Your task to perform on an android device: turn off notifications settings in the gmail app Image 0: 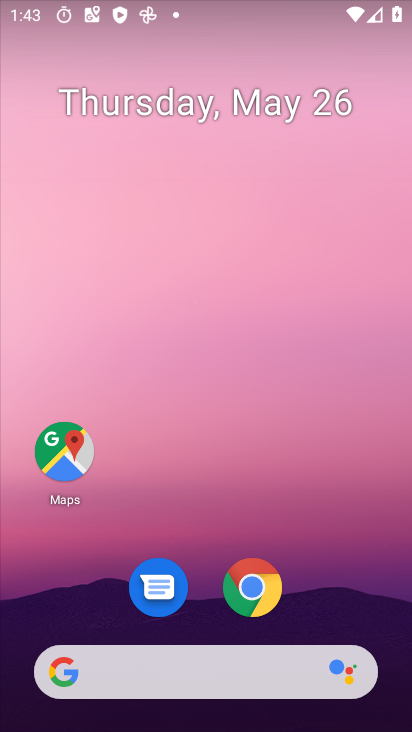
Step 0: drag from (347, 612) to (357, 231)
Your task to perform on an android device: turn off notifications settings in the gmail app Image 1: 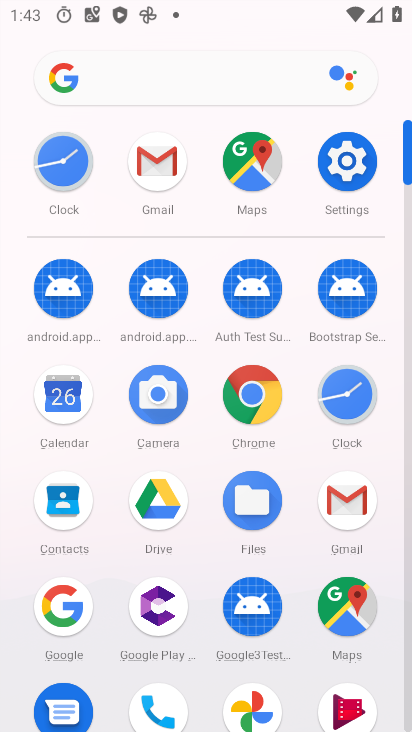
Step 1: click (357, 512)
Your task to perform on an android device: turn off notifications settings in the gmail app Image 2: 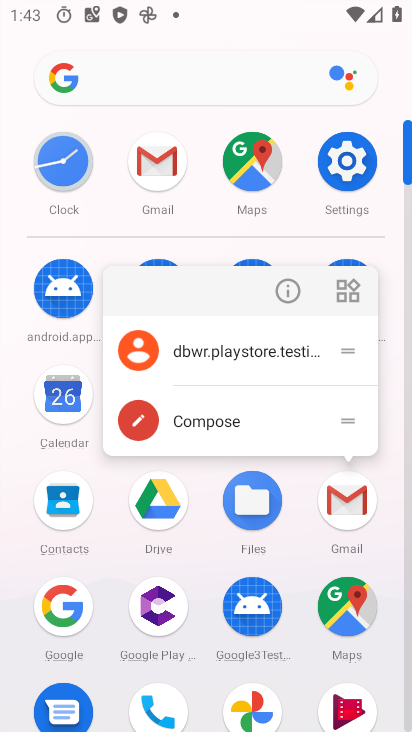
Step 2: click (357, 512)
Your task to perform on an android device: turn off notifications settings in the gmail app Image 3: 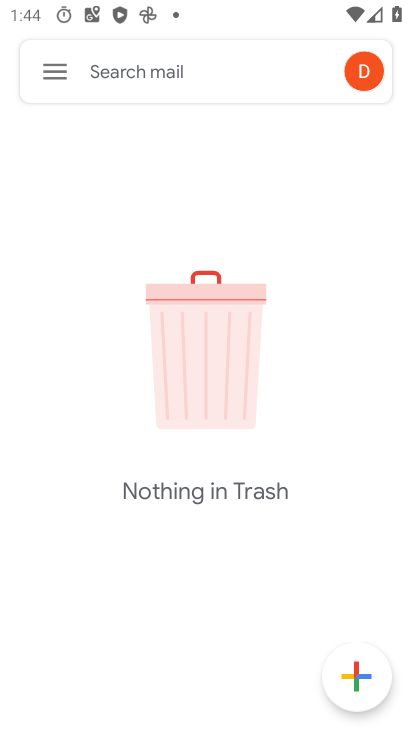
Step 3: click (51, 80)
Your task to perform on an android device: turn off notifications settings in the gmail app Image 4: 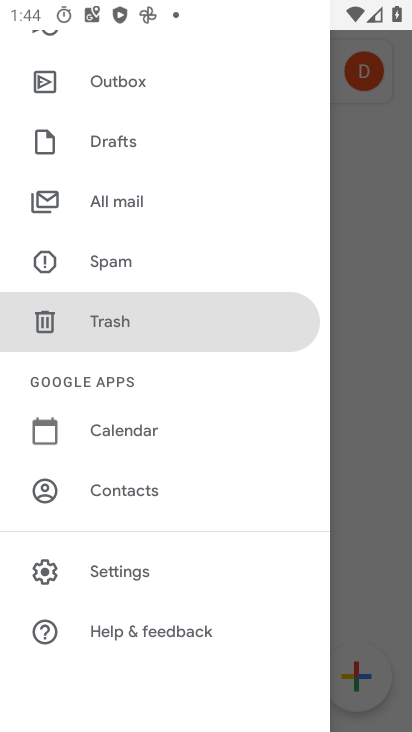
Step 4: drag from (245, 577) to (259, 407)
Your task to perform on an android device: turn off notifications settings in the gmail app Image 5: 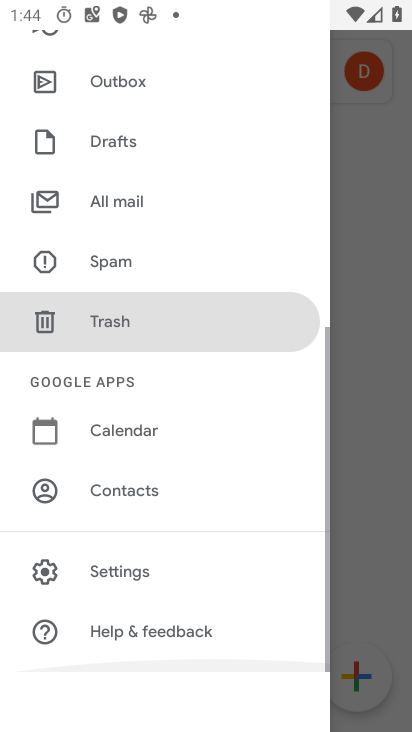
Step 5: drag from (267, 376) to (278, 465)
Your task to perform on an android device: turn off notifications settings in the gmail app Image 6: 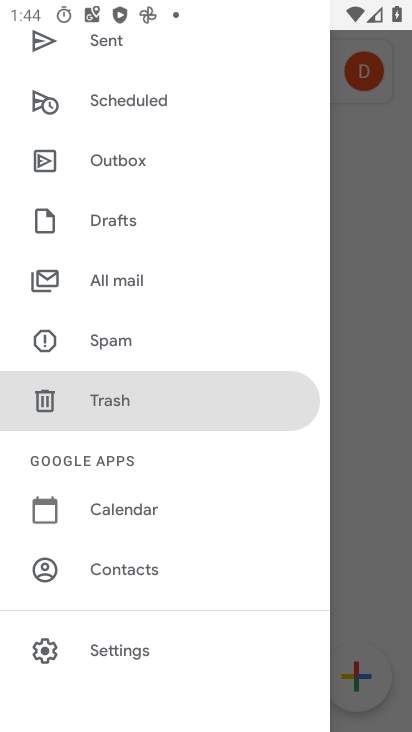
Step 6: drag from (271, 246) to (272, 367)
Your task to perform on an android device: turn off notifications settings in the gmail app Image 7: 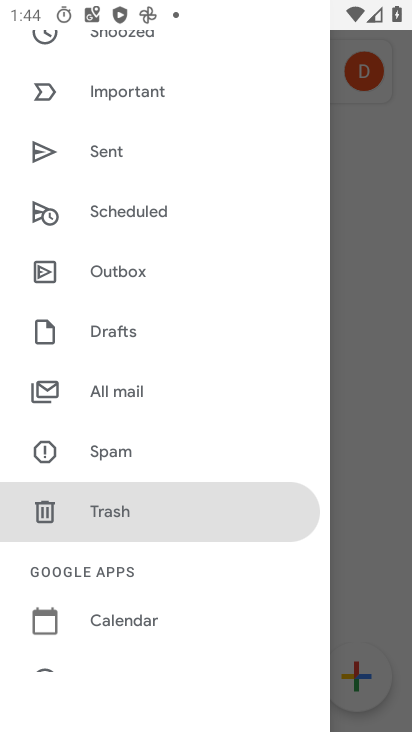
Step 7: drag from (262, 228) to (257, 357)
Your task to perform on an android device: turn off notifications settings in the gmail app Image 8: 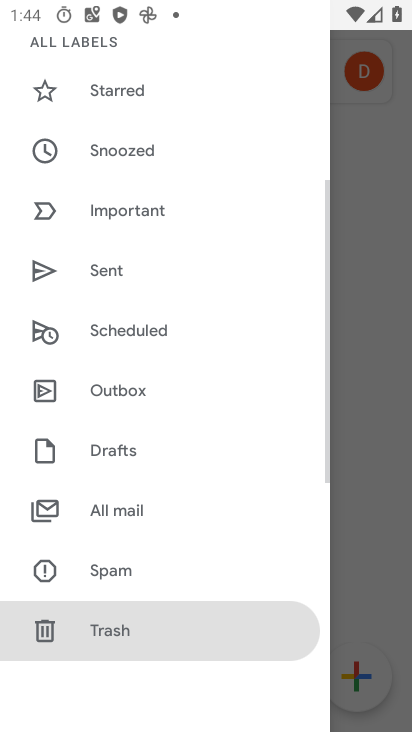
Step 8: drag from (249, 199) to (249, 335)
Your task to perform on an android device: turn off notifications settings in the gmail app Image 9: 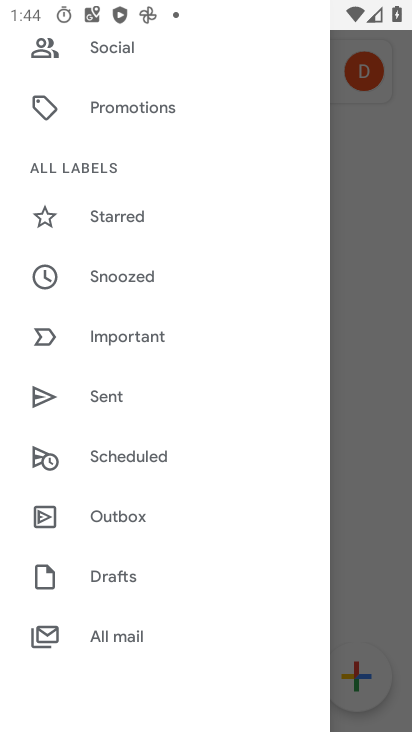
Step 9: drag from (246, 162) to (242, 303)
Your task to perform on an android device: turn off notifications settings in the gmail app Image 10: 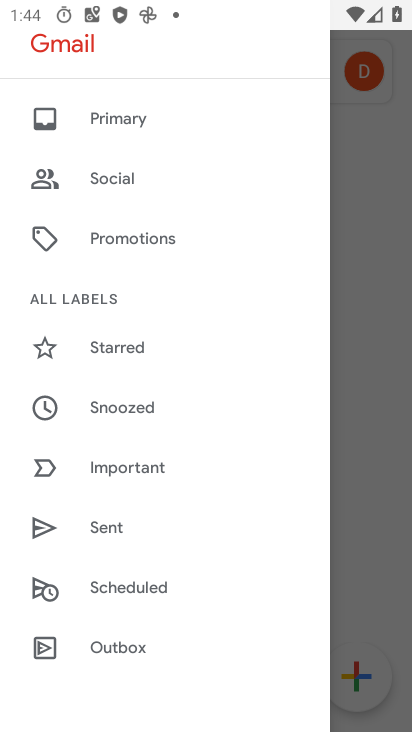
Step 10: drag from (247, 151) to (245, 289)
Your task to perform on an android device: turn off notifications settings in the gmail app Image 11: 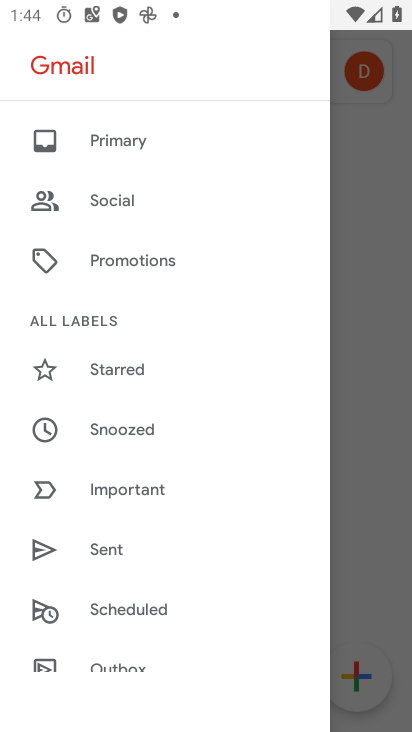
Step 11: drag from (244, 337) to (258, 245)
Your task to perform on an android device: turn off notifications settings in the gmail app Image 12: 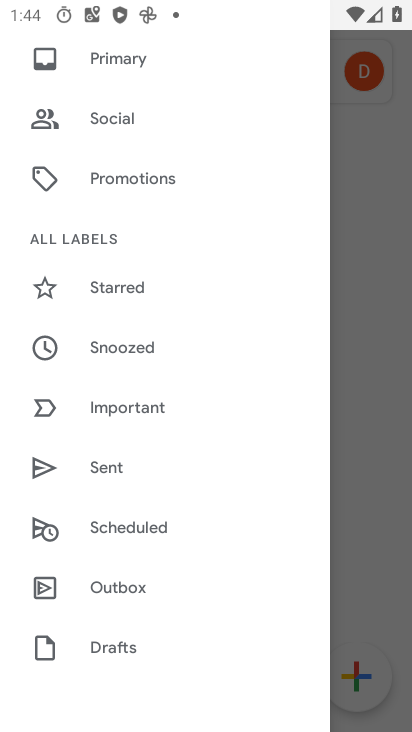
Step 12: drag from (259, 354) to (271, 260)
Your task to perform on an android device: turn off notifications settings in the gmail app Image 13: 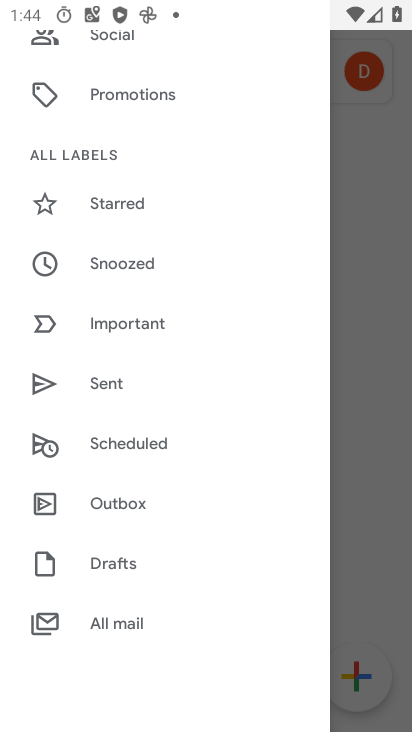
Step 13: drag from (267, 332) to (272, 250)
Your task to perform on an android device: turn off notifications settings in the gmail app Image 14: 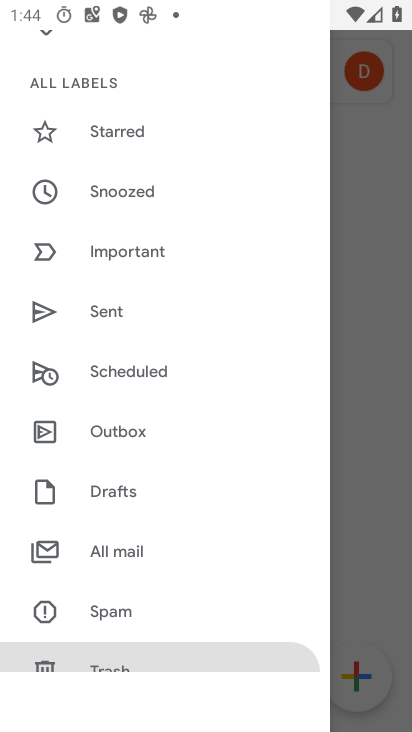
Step 14: drag from (268, 358) to (272, 264)
Your task to perform on an android device: turn off notifications settings in the gmail app Image 15: 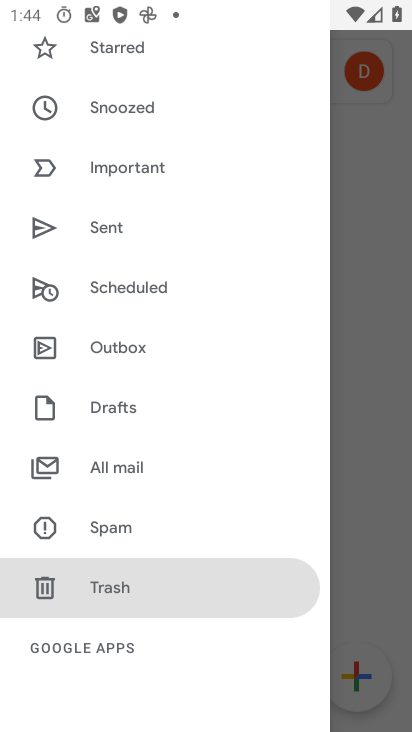
Step 15: drag from (257, 370) to (262, 278)
Your task to perform on an android device: turn off notifications settings in the gmail app Image 16: 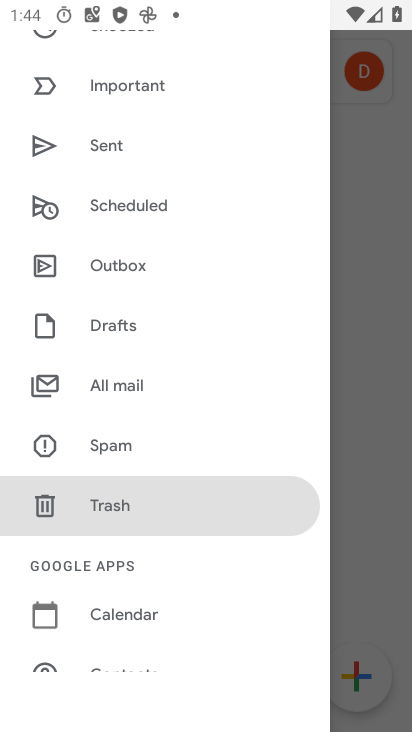
Step 16: drag from (254, 401) to (256, 296)
Your task to perform on an android device: turn off notifications settings in the gmail app Image 17: 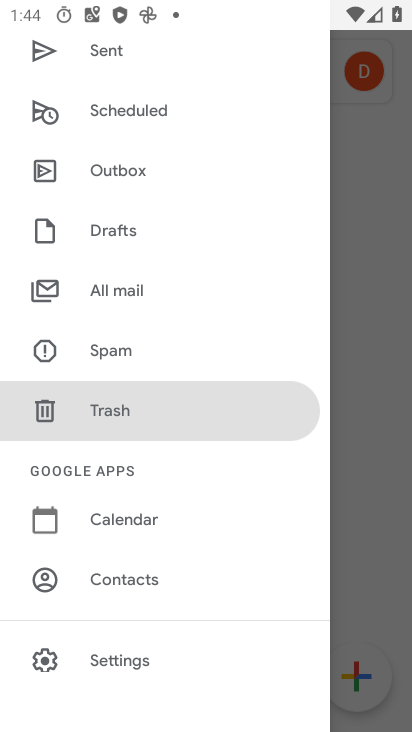
Step 17: drag from (230, 481) to (241, 348)
Your task to perform on an android device: turn off notifications settings in the gmail app Image 18: 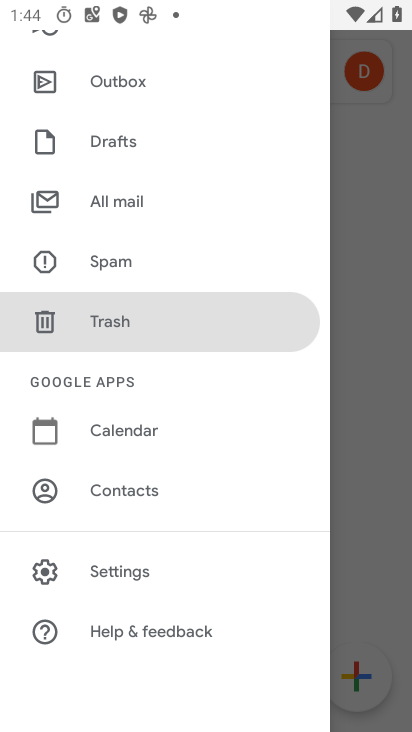
Step 18: click (144, 575)
Your task to perform on an android device: turn off notifications settings in the gmail app Image 19: 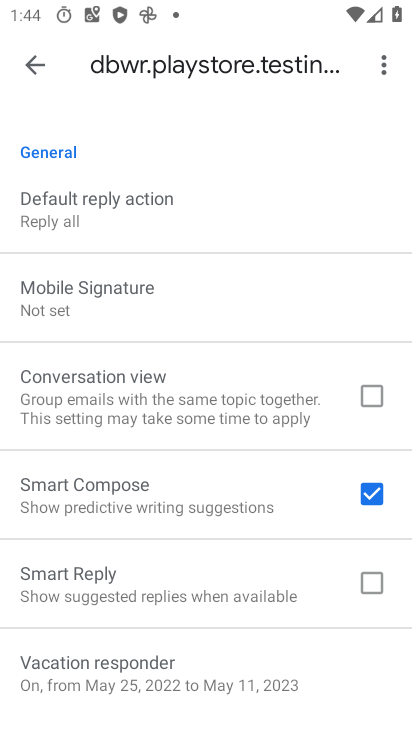
Step 19: drag from (239, 410) to (242, 331)
Your task to perform on an android device: turn off notifications settings in the gmail app Image 20: 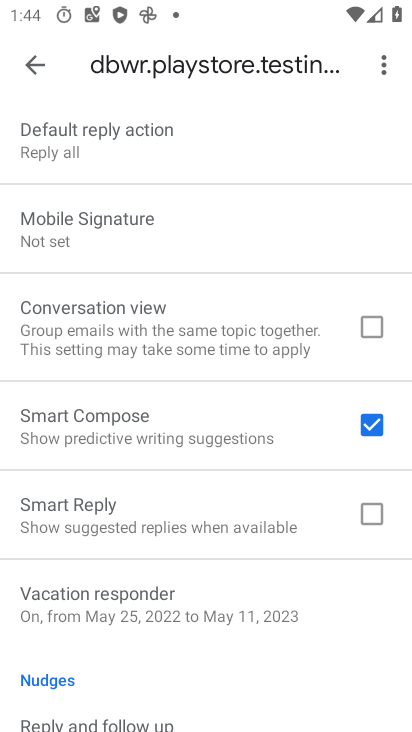
Step 20: drag from (236, 402) to (235, 323)
Your task to perform on an android device: turn off notifications settings in the gmail app Image 21: 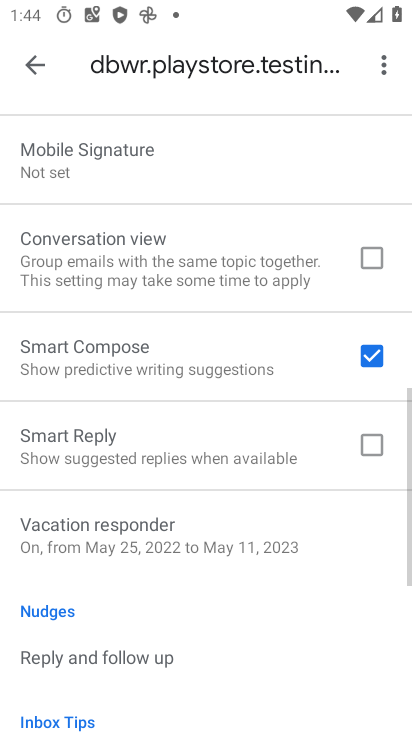
Step 21: drag from (235, 225) to (240, 315)
Your task to perform on an android device: turn off notifications settings in the gmail app Image 22: 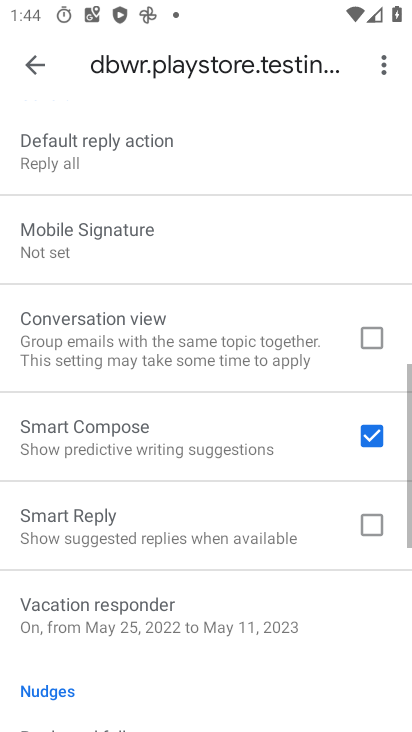
Step 22: drag from (240, 216) to (244, 297)
Your task to perform on an android device: turn off notifications settings in the gmail app Image 23: 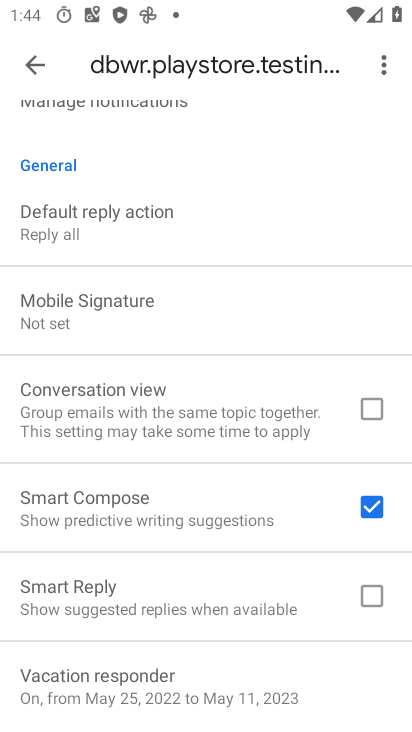
Step 23: drag from (238, 204) to (239, 290)
Your task to perform on an android device: turn off notifications settings in the gmail app Image 24: 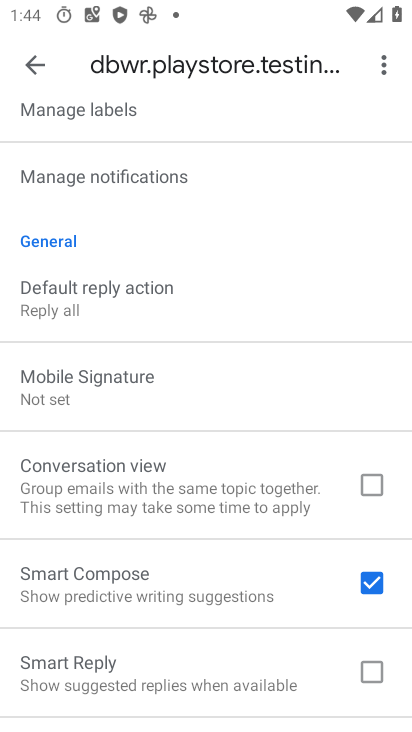
Step 24: drag from (244, 231) to (248, 335)
Your task to perform on an android device: turn off notifications settings in the gmail app Image 25: 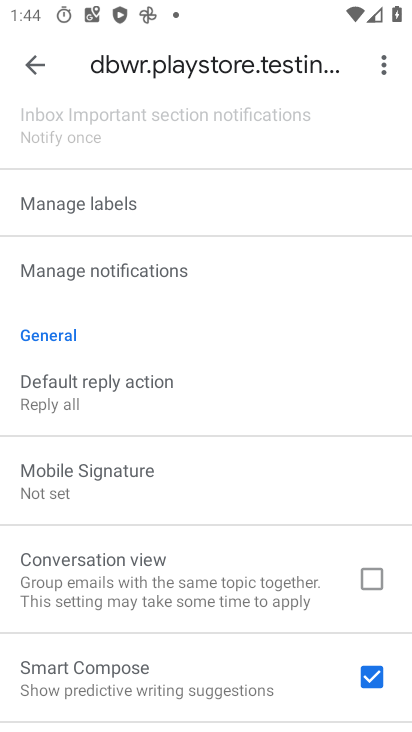
Step 25: click (176, 260)
Your task to perform on an android device: turn off notifications settings in the gmail app Image 26: 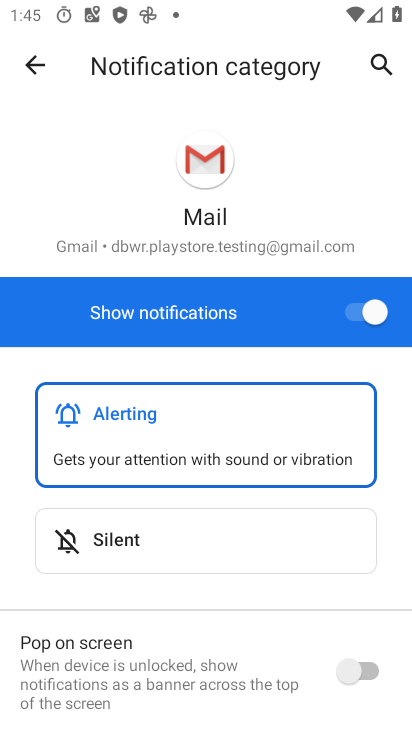
Step 26: click (382, 316)
Your task to perform on an android device: turn off notifications settings in the gmail app Image 27: 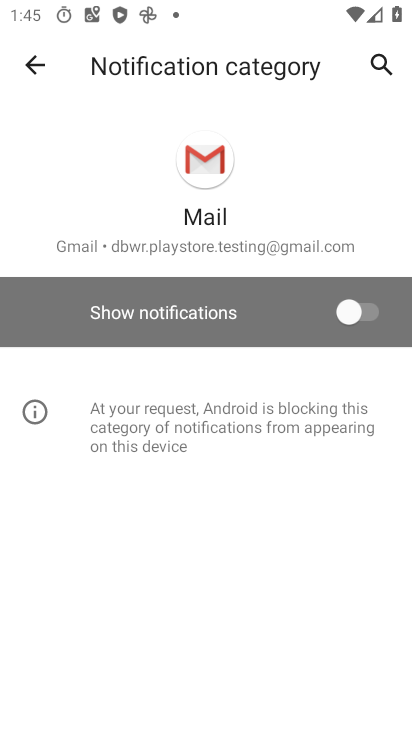
Step 27: task complete